Your task to perform on an android device: Do I have any events tomorrow? Image 0: 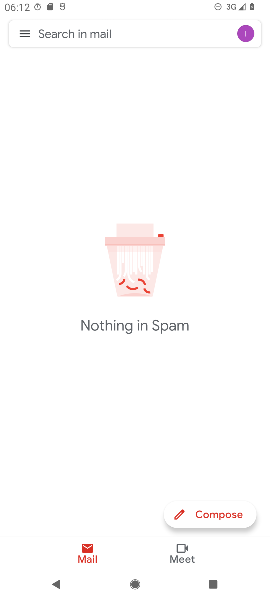
Step 0: press home button
Your task to perform on an android device: Do I have any events tomorrow? Image 1: 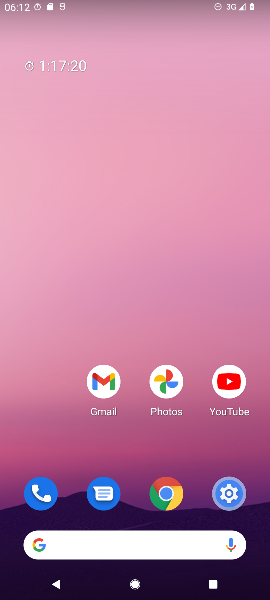
Step 1: drag from (68, 474) to (260, 206)
Your task to perform on an android device: Do I have any events tomorrow? Image 2: 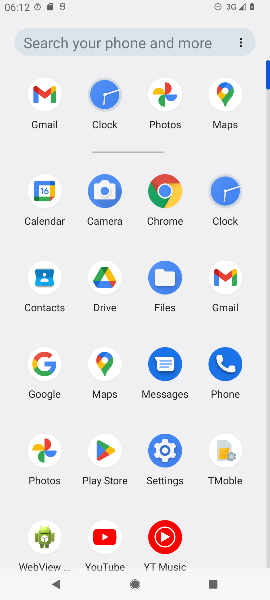
Step 2: click (46, 192)
Your task to perform on an android device: Do I have any events tomorrow? Image 3: 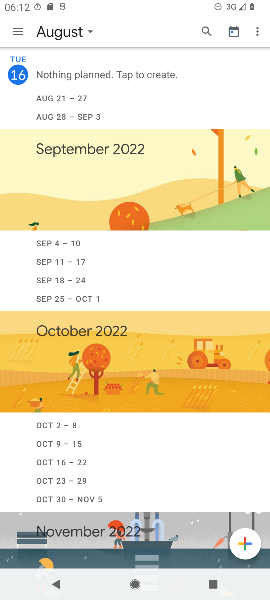
Step 3: task complete